Your task to perform on an android device: Go to Yahoo.com Image 0: 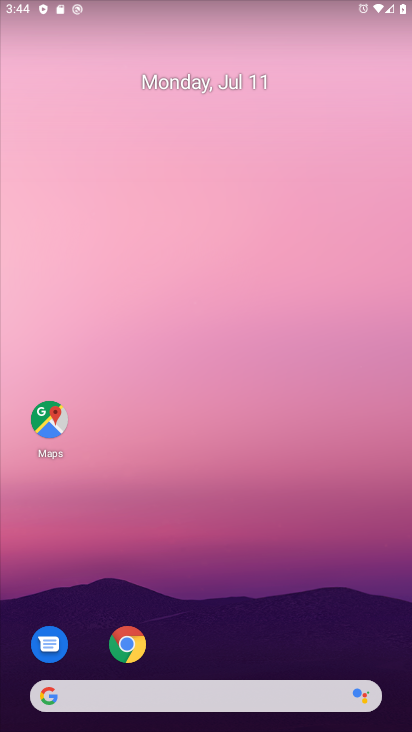
Step 0: drag from (128, 681) to (199, 9)
Your task to perform on an android device: Go to Yahoo.com Image 1: 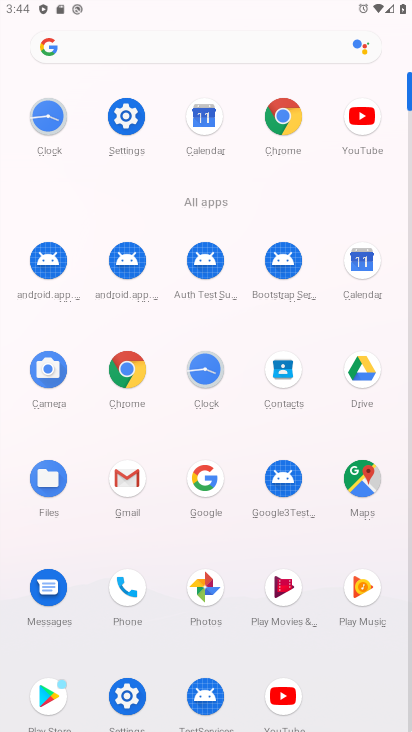
Step 1: click (112, 369)
Your task to perform on an android device: Go to Yahoo.com Image 2: 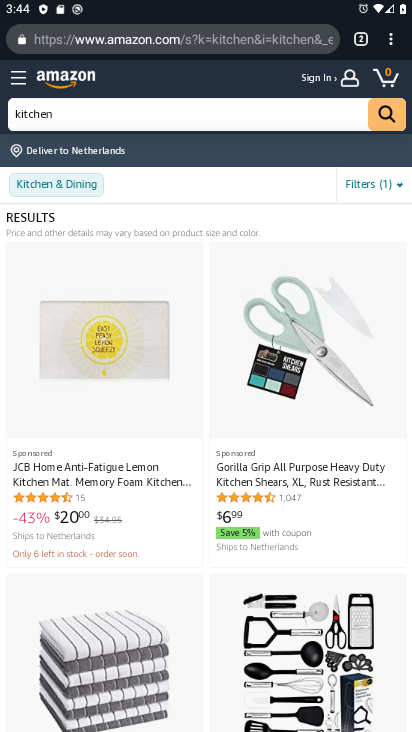
Step 2: drag from (391, 35) to (310, 66)
Your task to perform on an android device: Go to Yahoo.com Image 3: 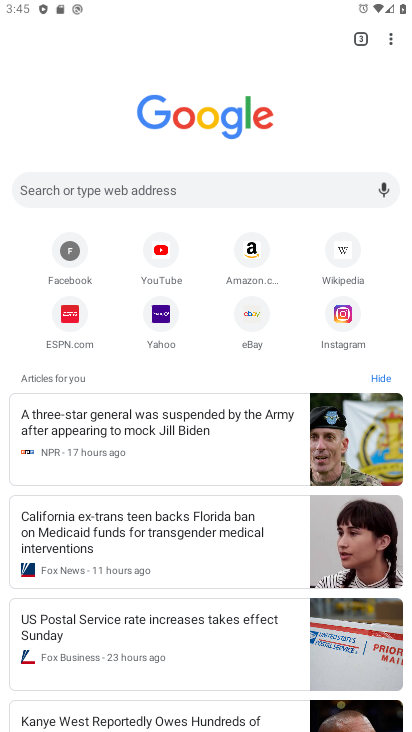
Step 3: click (166, 315)
Your task to perform on an android device: Go to Yahoo.com Image 4: 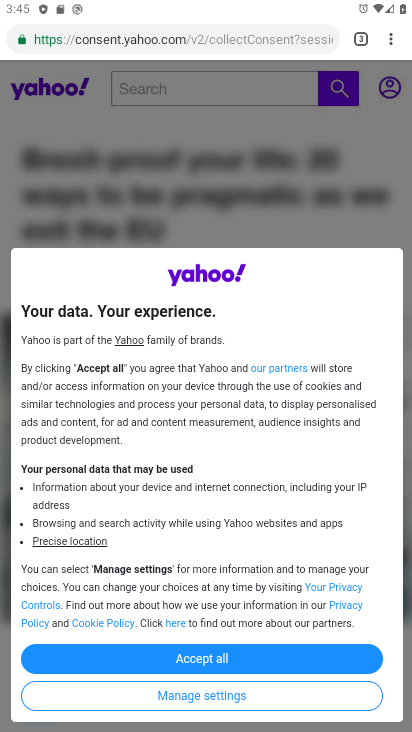
Step 4: task complete